Your task to perform on an android device: star an email in the gmail app Image 0: 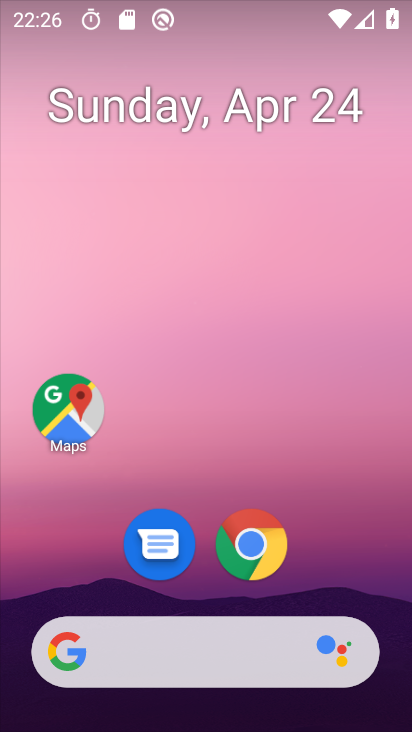
Step 0: click (335, 258)
Your task to perform on an android device: star an email in the gmail app Image 1: 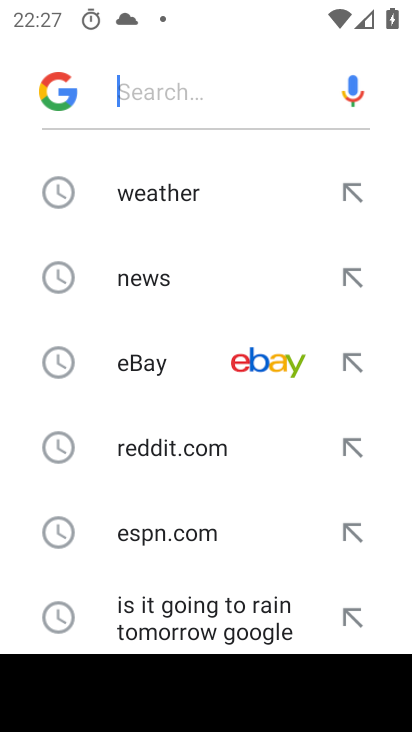
Step 1: press home button
Your task to perform on an android device: star an email in the gmail app Image 2: 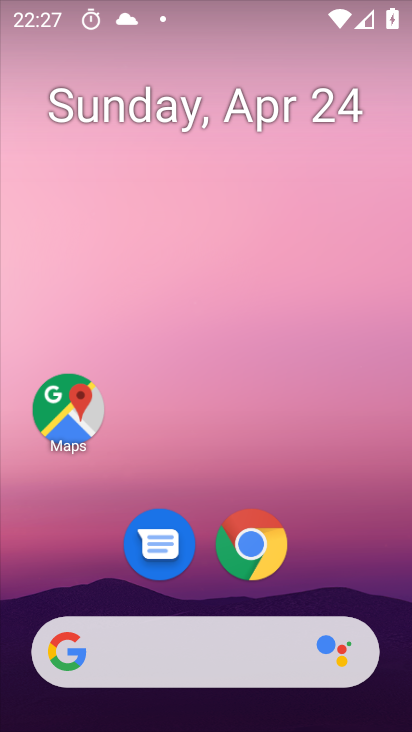
Step 2: drag from (323, 561) to (372, 147)
Your task to perform on an android device: star an email in the gmail app Image 3: 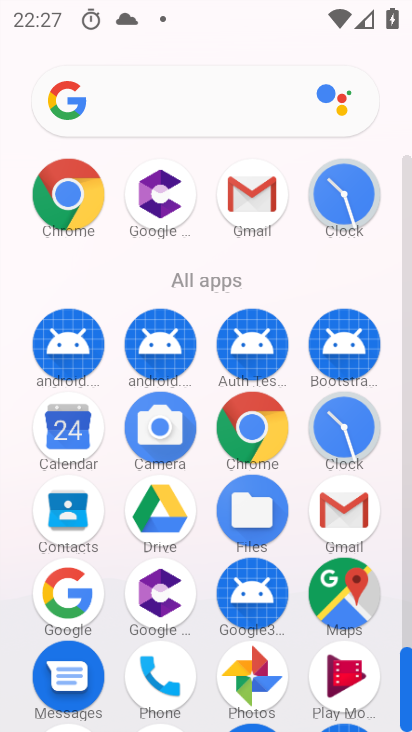
Step 3: click (241, 189)
Your task to perform on an android device: star an email in the gmail app Image 4: 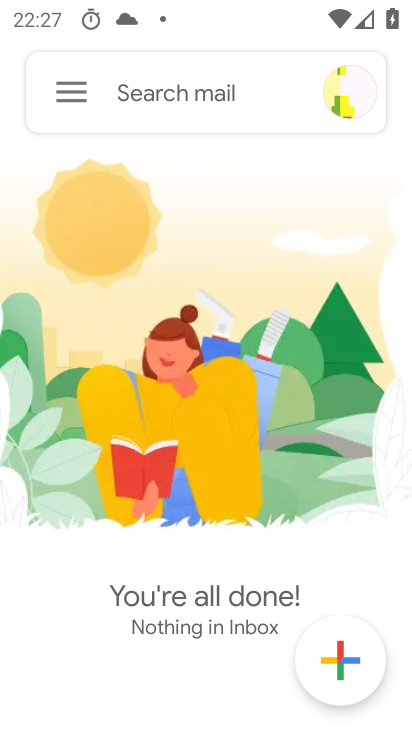
Step 4: click (62, 96)
Your task to perform on an android device: star an email in the gmail app Image 5: 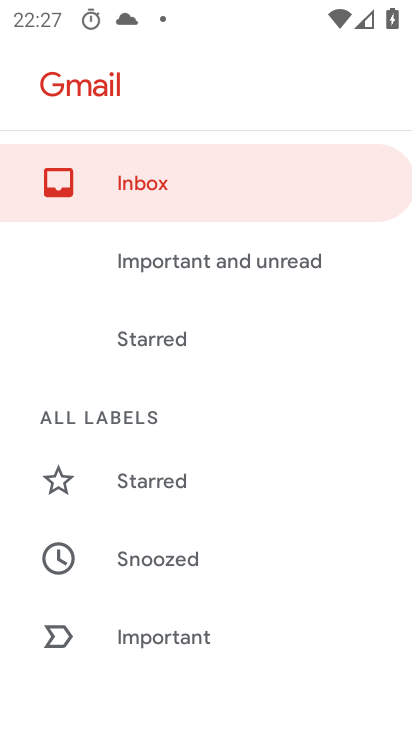
Step 5: click (180, 473)
Your task to perform on an android device: star an email in the gmail app Image 6: 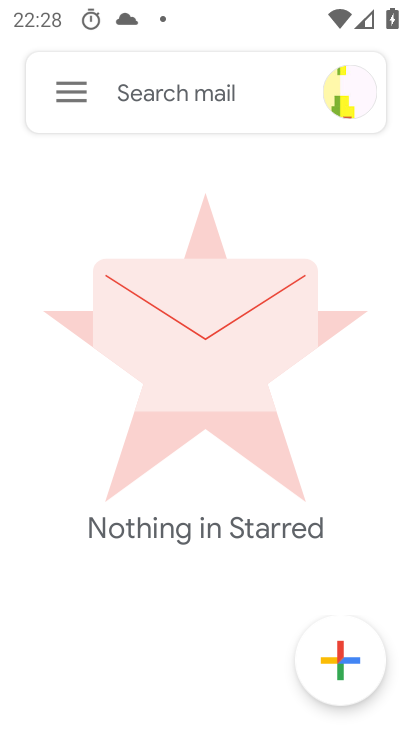
Step 6: task complete